Your task to perform on an android device: check out phone information Image 0: 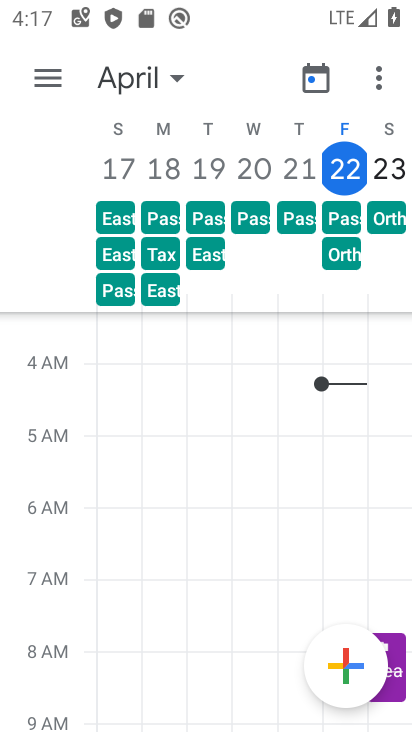
Step 0: press home button
Your task to perform on an android device: check out phone information Image 1: 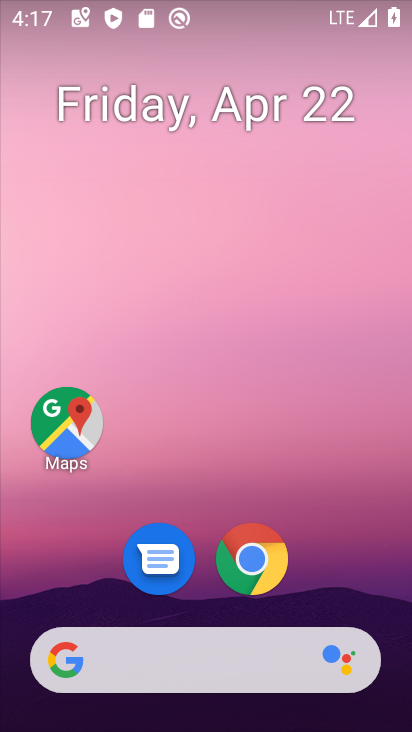
Step 1: drag from (339, 556) to (291, 16)
Your task to perform on an android device: check out phone information Image 2: 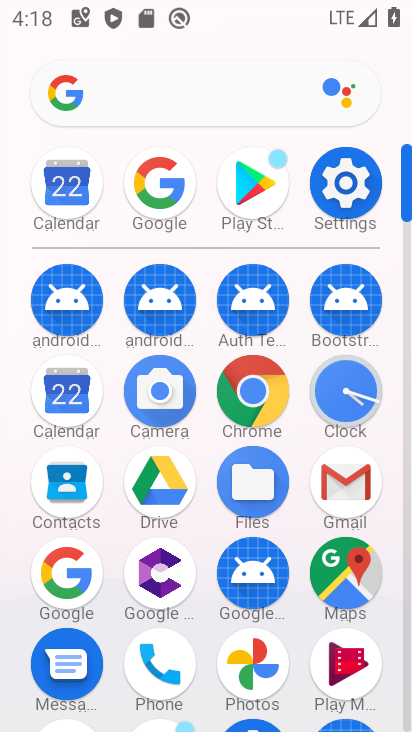
Step 2: click (350, 186)
Your task to perform on an android device: check out phone information Image 3: 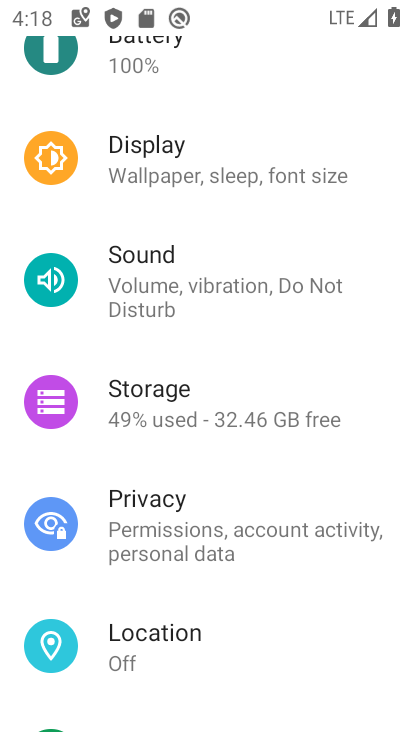
Step 3: drag from (241, 607) to (239, 109)
Your task to perform on an android device: check out phone information Image 4: 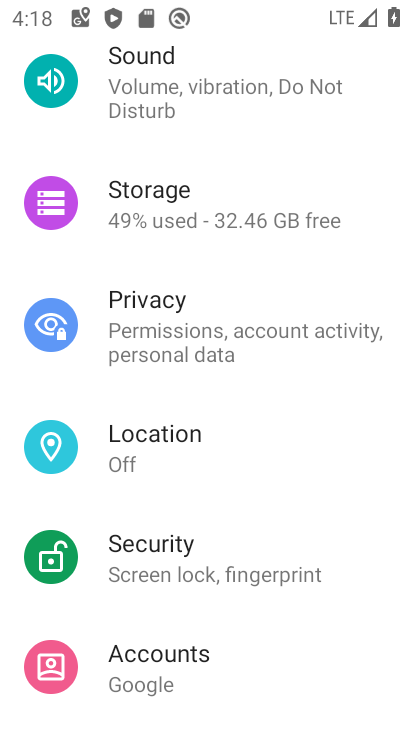
Step 4: drag from (246, 605) to (248, 77)
Your task to perform on an android device: check out phone information Image 5: 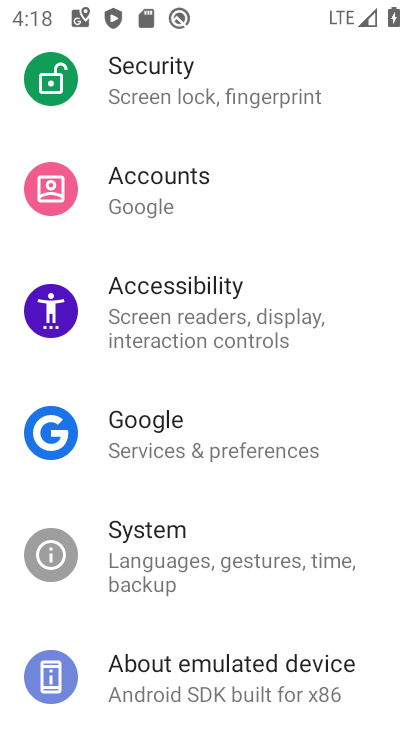
Step 5: click (208, 689)
Your task to perform on an android device: check out phone information Image 6: 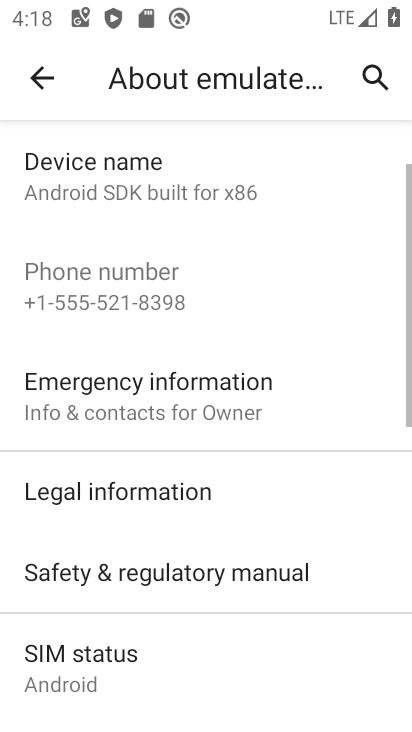
Step 6: task complete